Your task to perform on an android device: Clear all items from cart on amazon.com. Add "razer deathadder" to the cart on amazon.com, then select checkout. Image 0: 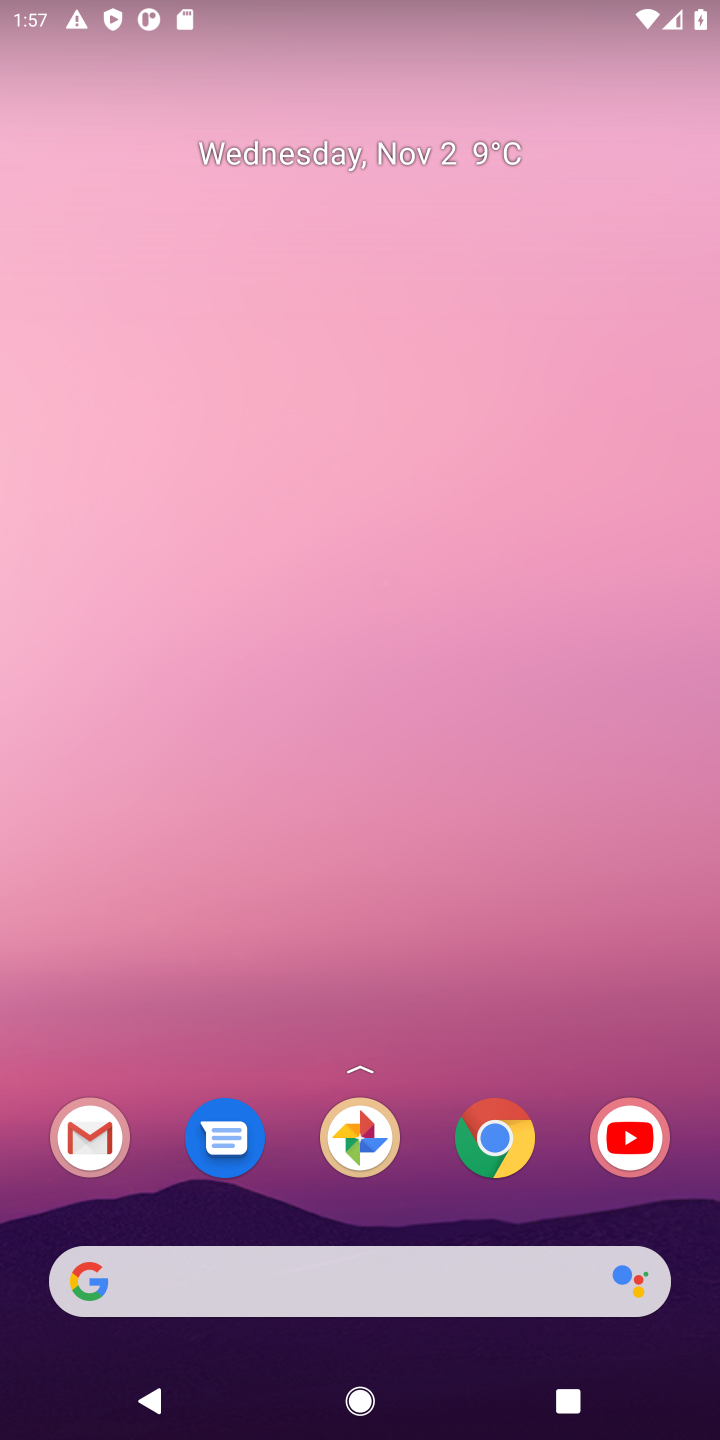
Step 0: click (524, 1151)
Your task to perform on an android device: Clear all items from cart on amazon.com. Add "razer deathadder" to the cart on amazon.com, then select checkout. Image 1: 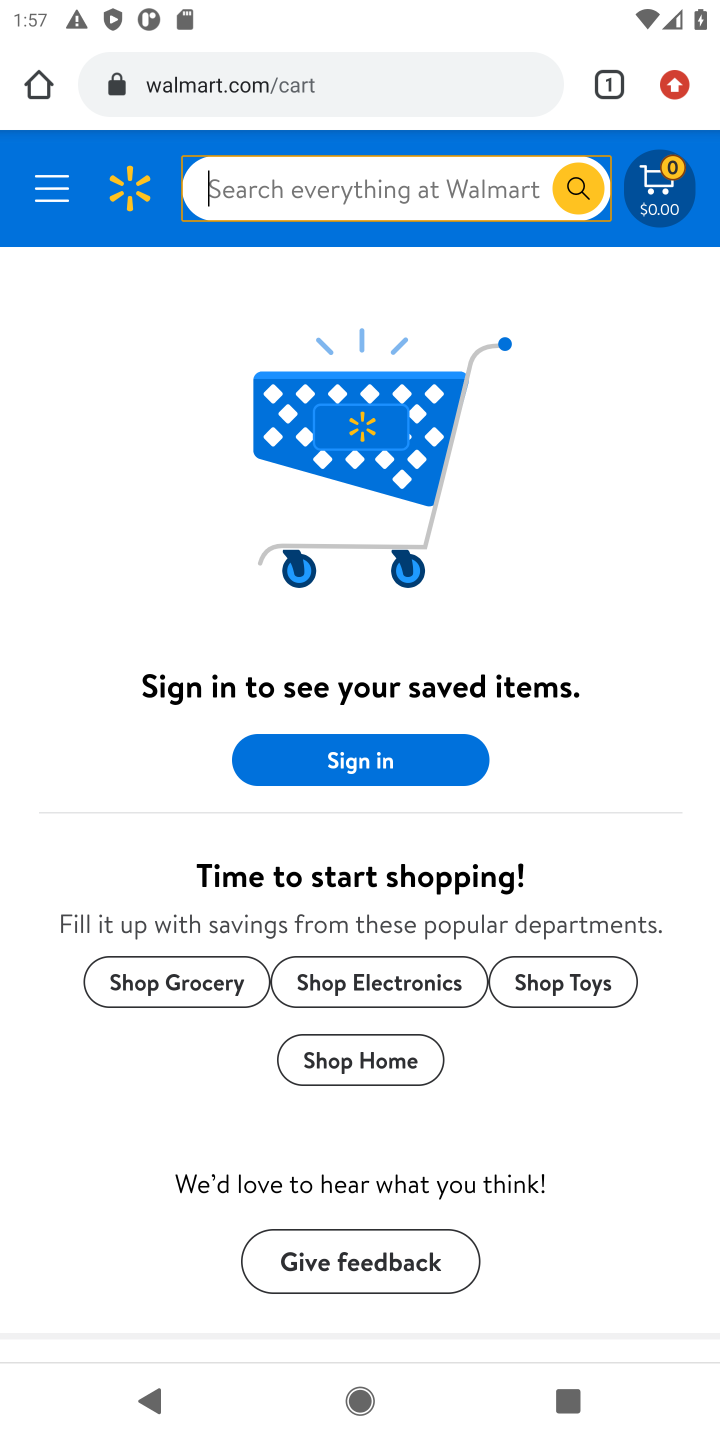
Step 1: click (428, 109)
Your task to perform on an android device: Clear all items from cart on amazon.com. Add "razer deathadder" to the cart on amazon.com, then select checkout. Image 2: 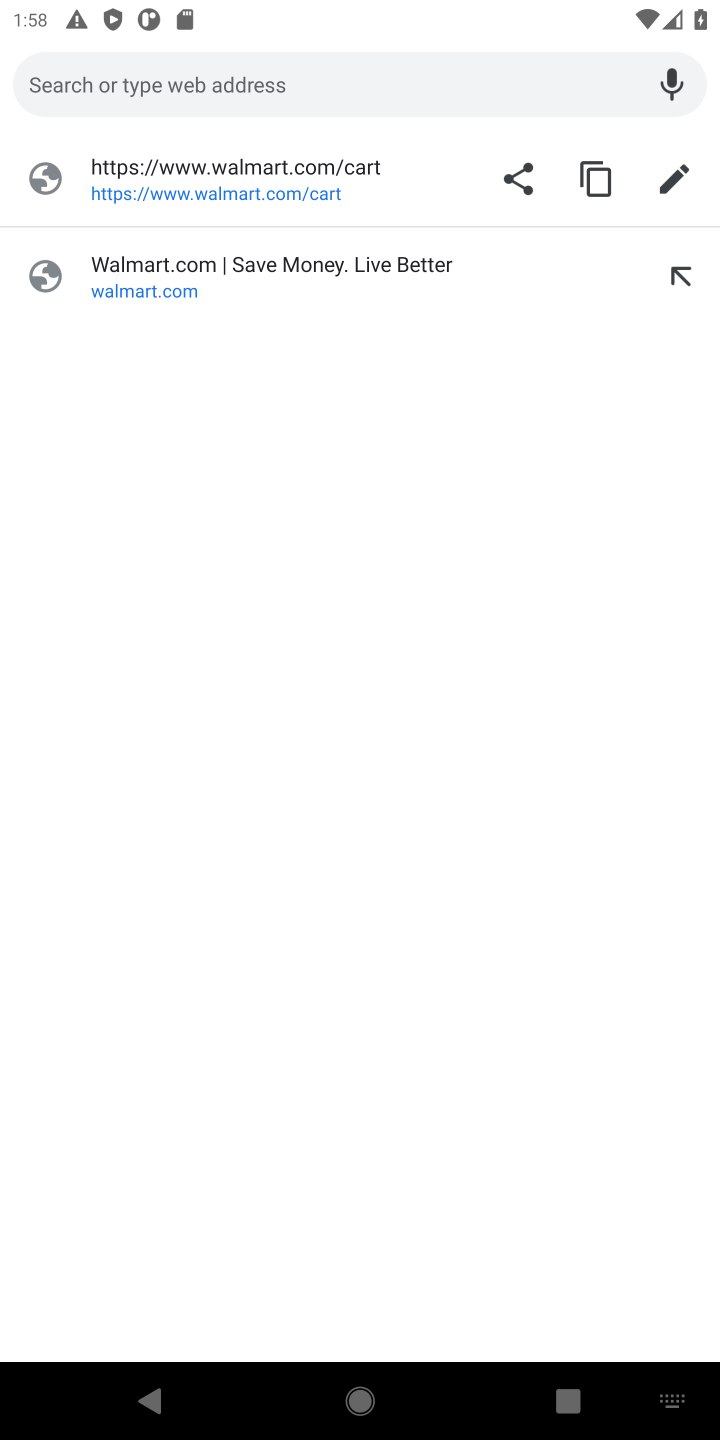
Step 2: type "amazon"
Your task to perform on an android device: Clear all items from cart on amazon.com. Add "razer deathadder" to the cart on amazon.com, then select checkout. Image 3: 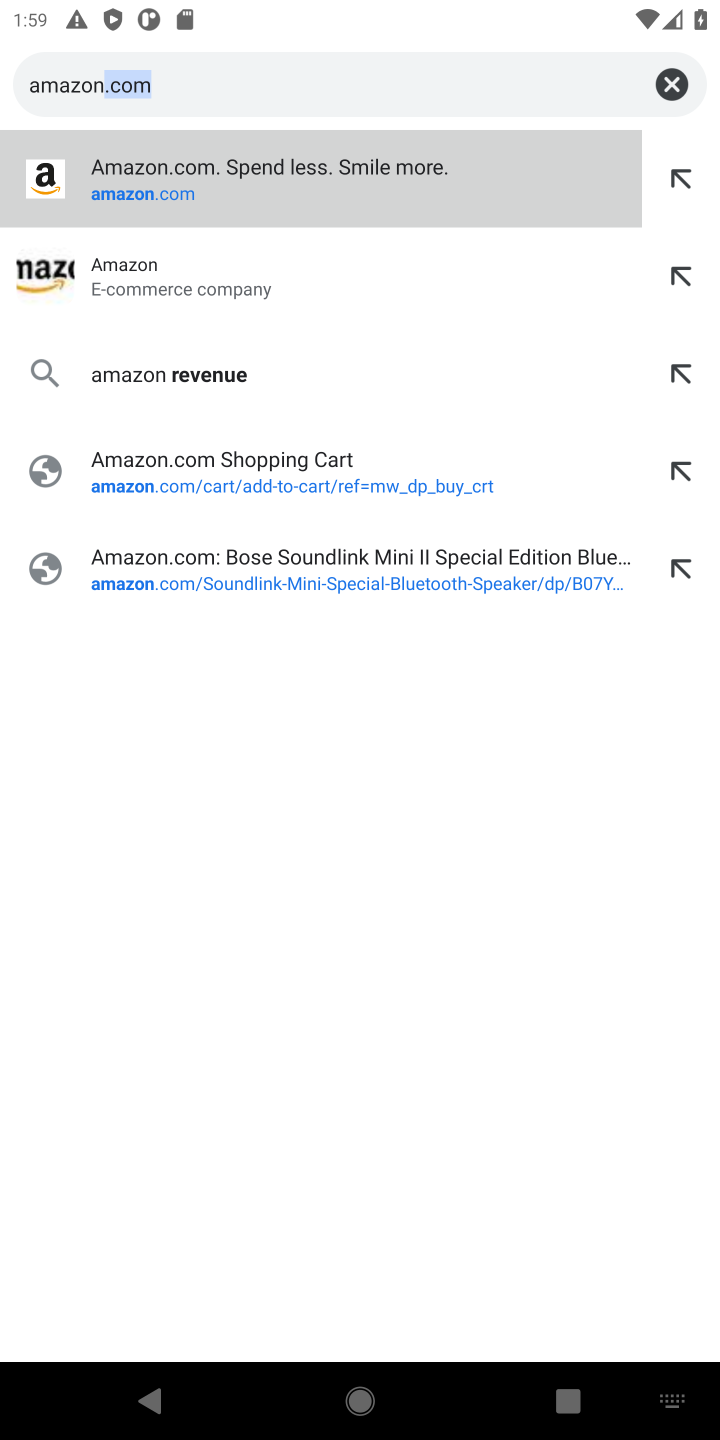
Step 3: click (210, 165)
Your task to perform on an android device: Clear all items from cart on amazon.com. Add "razer deathadder" to the cart on amazon.com, then select checkout. Image 4: 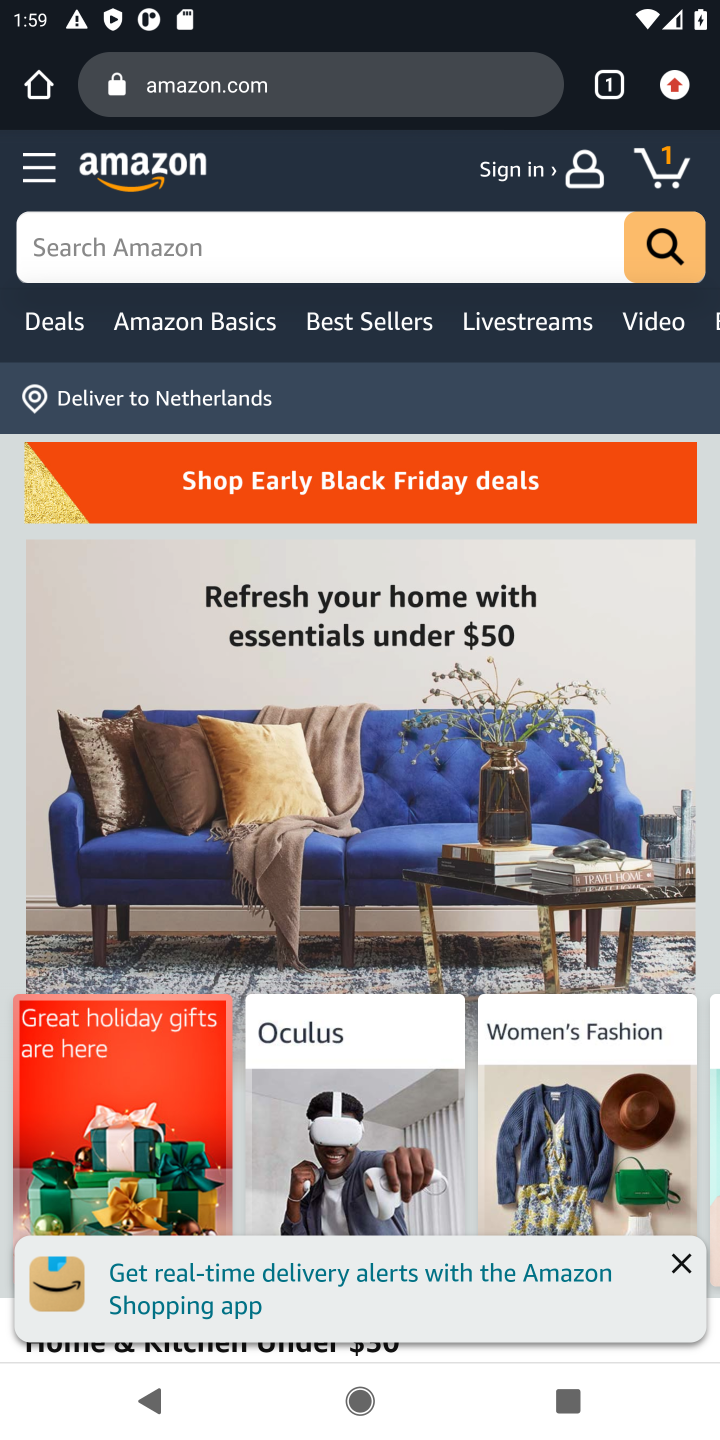
Step 4: click (650, 157)
Your task to perform on an android device: Clear all items from cart on amazon.com. Add "razer deathadder" to the cart on amazon.com, then select checkout. Image 5: 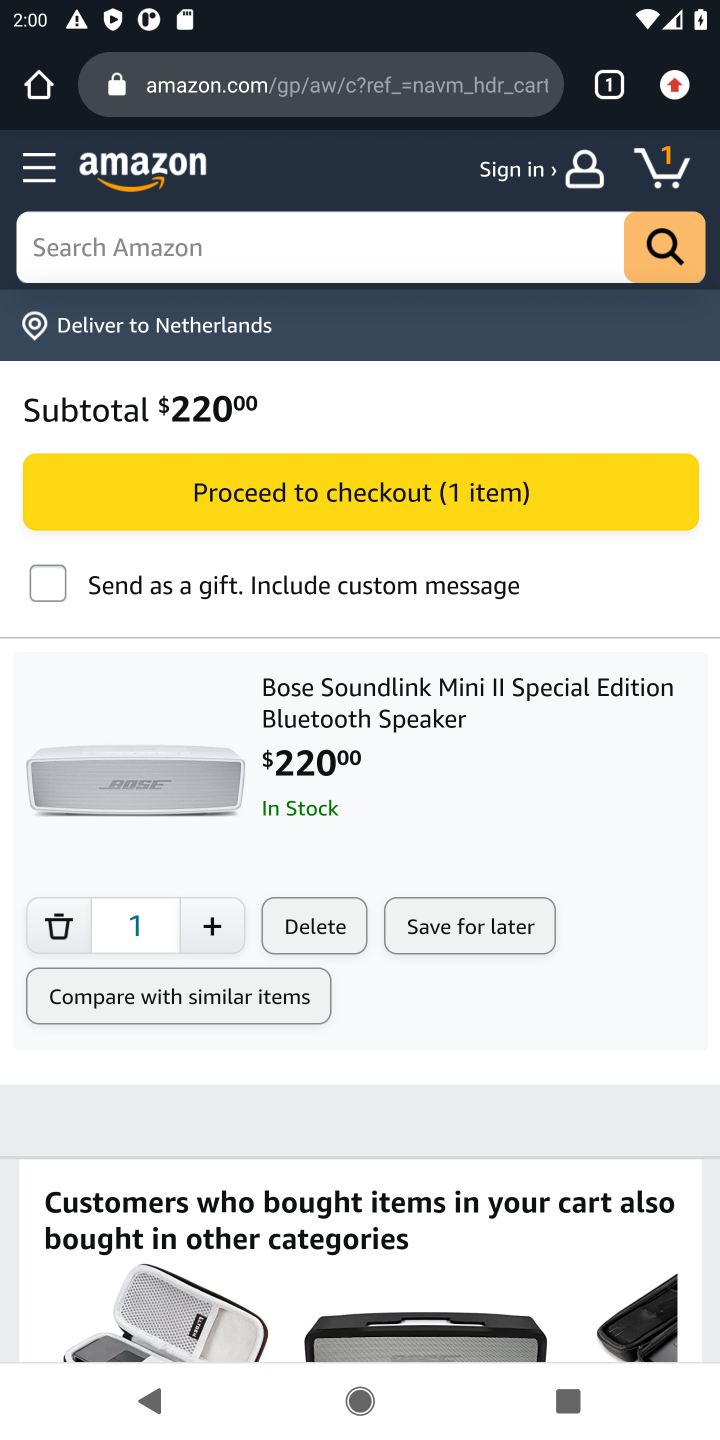
Step 5: click (336, 916)
Your task to perform on an android device: Clear all items from cart on amazon.com. Add "razer deathadder" to the cart on amazon.com, then select checkout. Image 6: 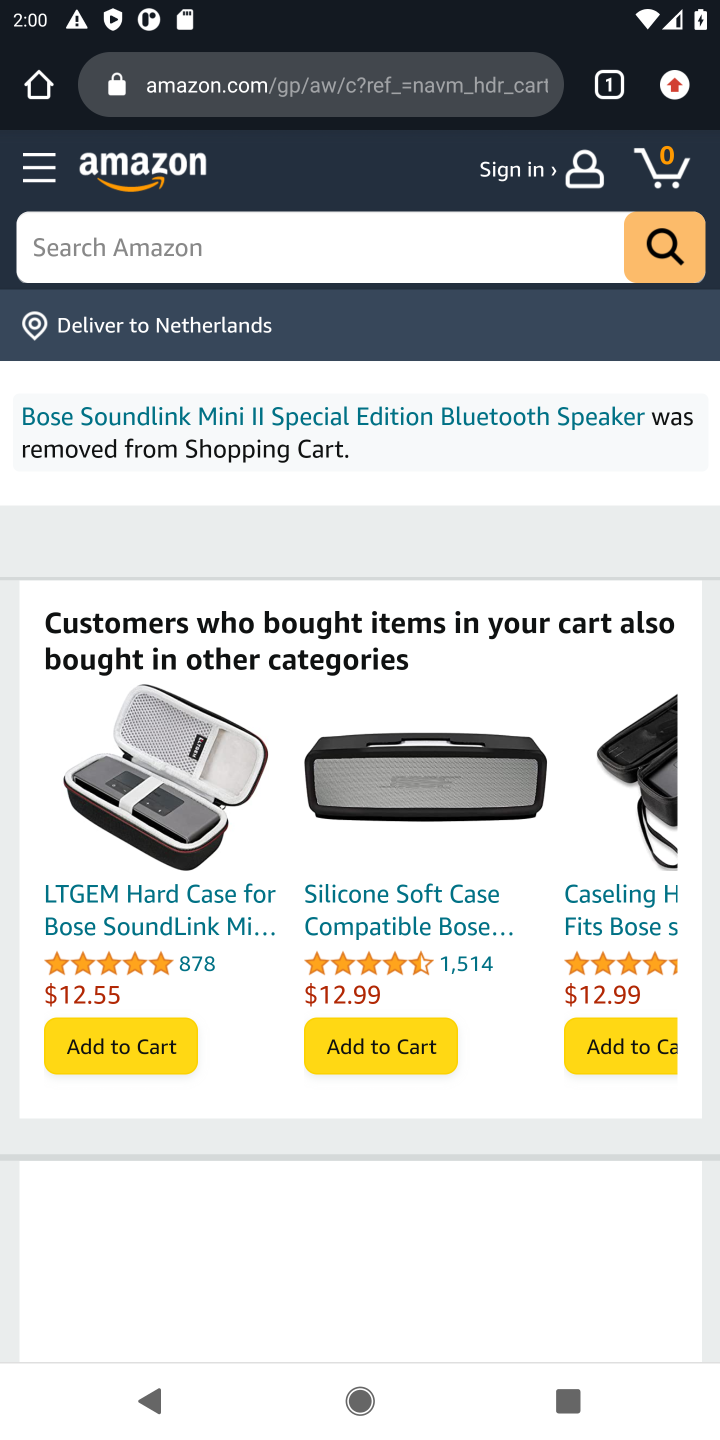
Step 6: click (214, 260)
Your task to perform on an android device: Clear all items from cart on amazon.com. Add "razer deathadder" to the cart on amazon.com, then select checkout. Image 7: 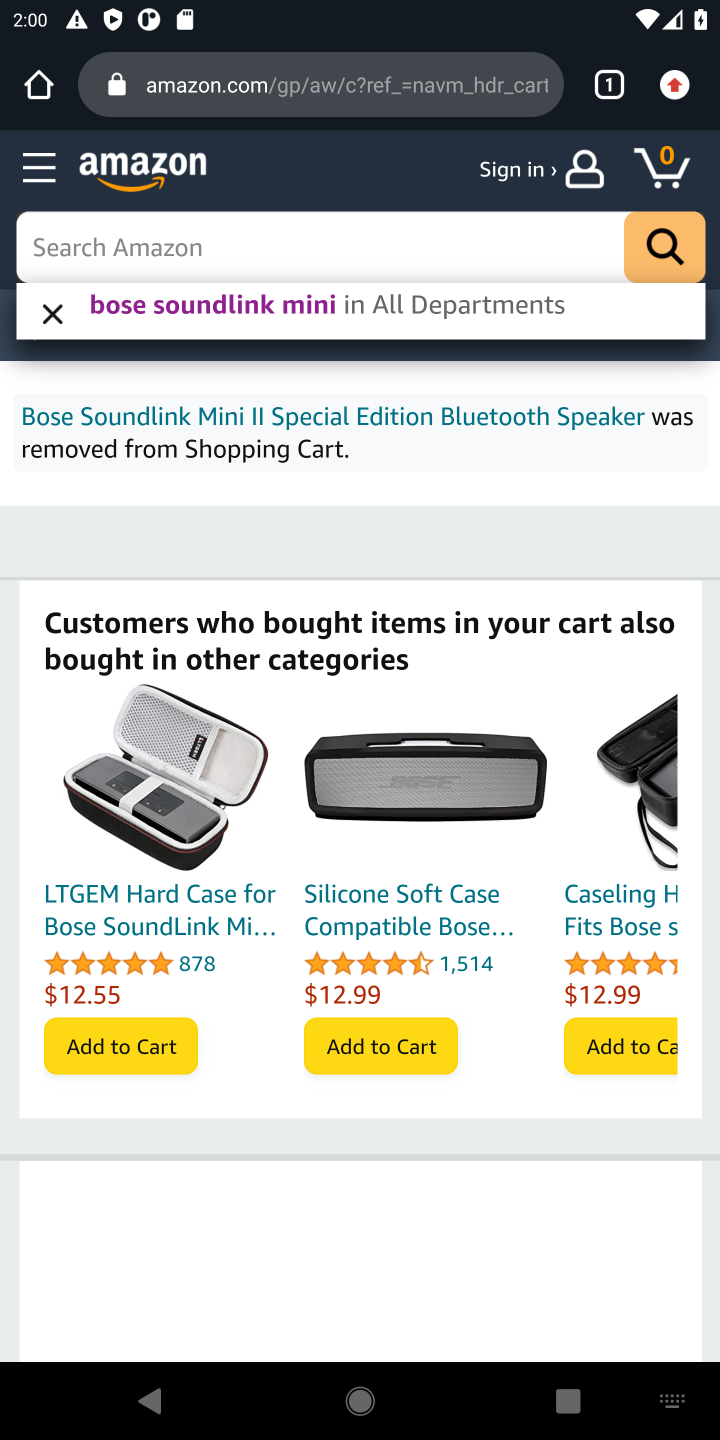
Step 7: type "razer deathadder"
Your task to perform on an android device: Clear all items from cart on amazon.com. Add "razer deathadder" to the cart on amazon.com, then select checkout. Image 8: 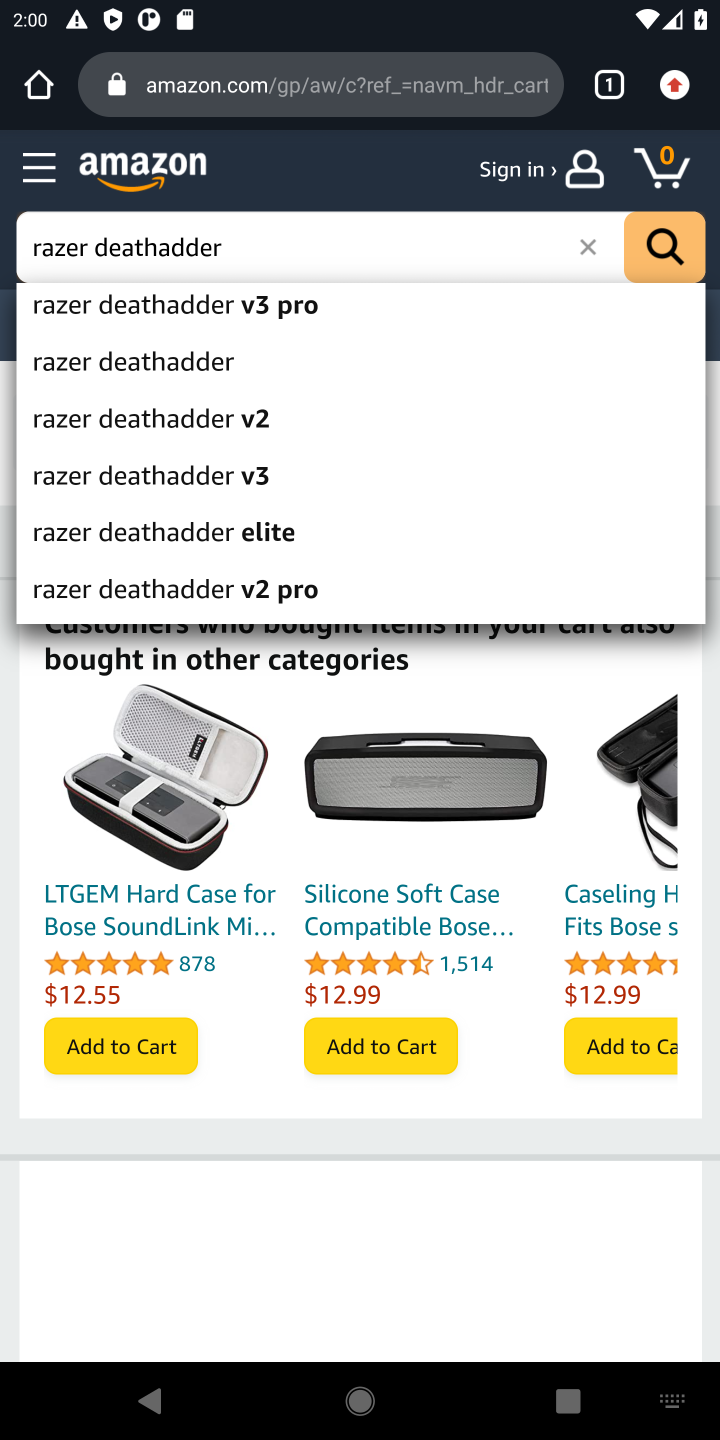
Step 8: click (638, 260)
Your task to perform on an android device: Clear all items from cart on amazon.com. Add "razer deathadder" to the cart on amazon.com, then select checkout. Image 9: 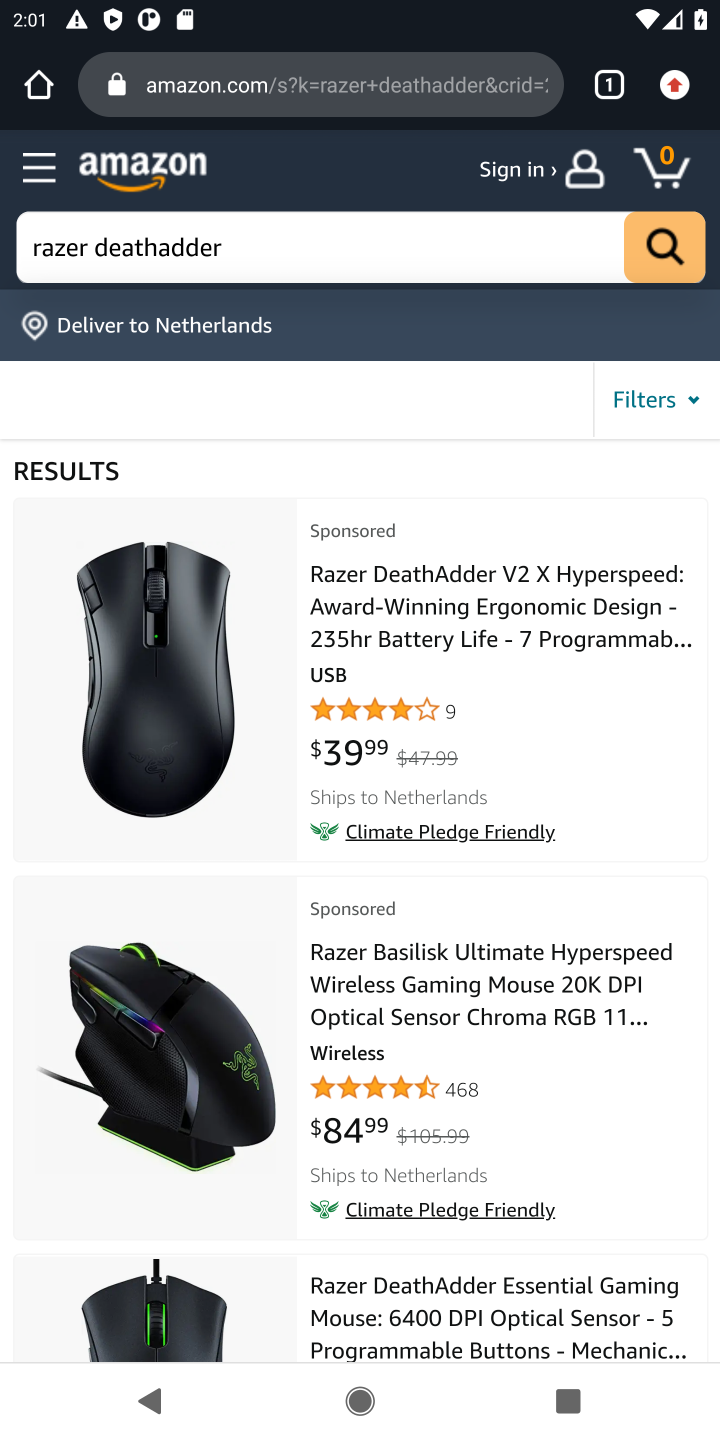
Step 9: click (460, 611)
Your task to perform on an android device: Clear all items from cart on amazon.com. Add "razer deathadder" to the cart on amazon.com, then select checkout. Image 10: 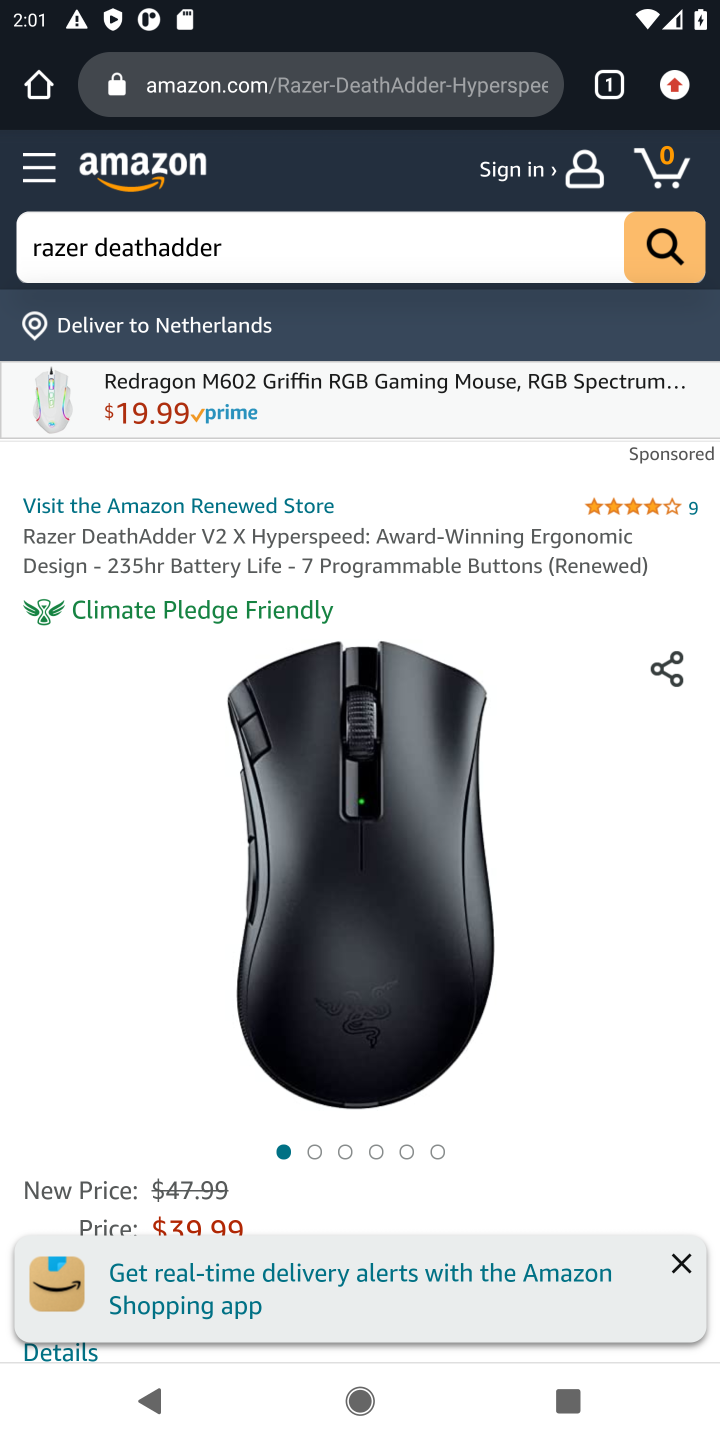
Step 10: drag from (392, 1021) to (438, 411)
Your task to perform on an android device: Clear all items from cart on amazon.com. Add "razer deathadder" to the cart on amazon.com, then select checkout. Image 11: 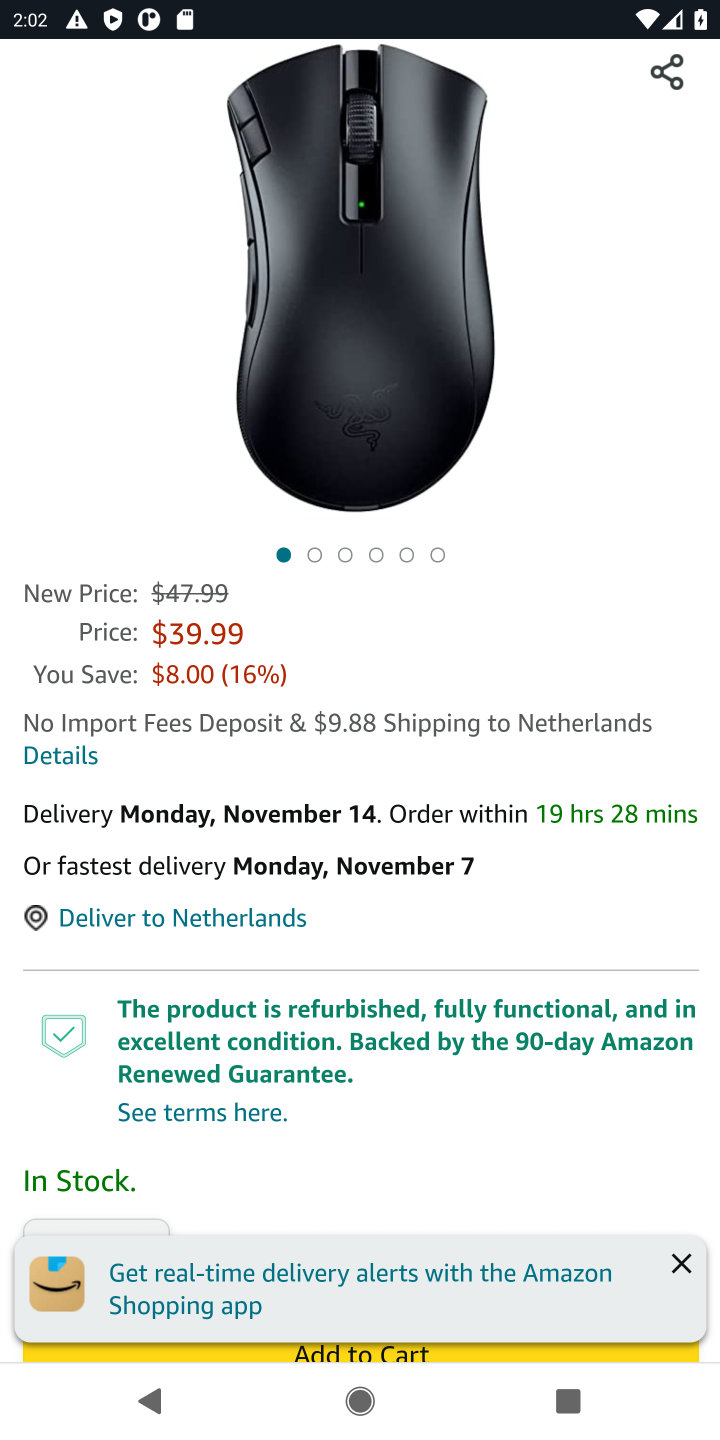
Step 11: drag from (423, 616) to (427, 316)
Your task to perform on an android device: Clear all items from cart on amazon.com. Add "razer deathadder" to the cart on amazon.com, then select checkout. Image 12: 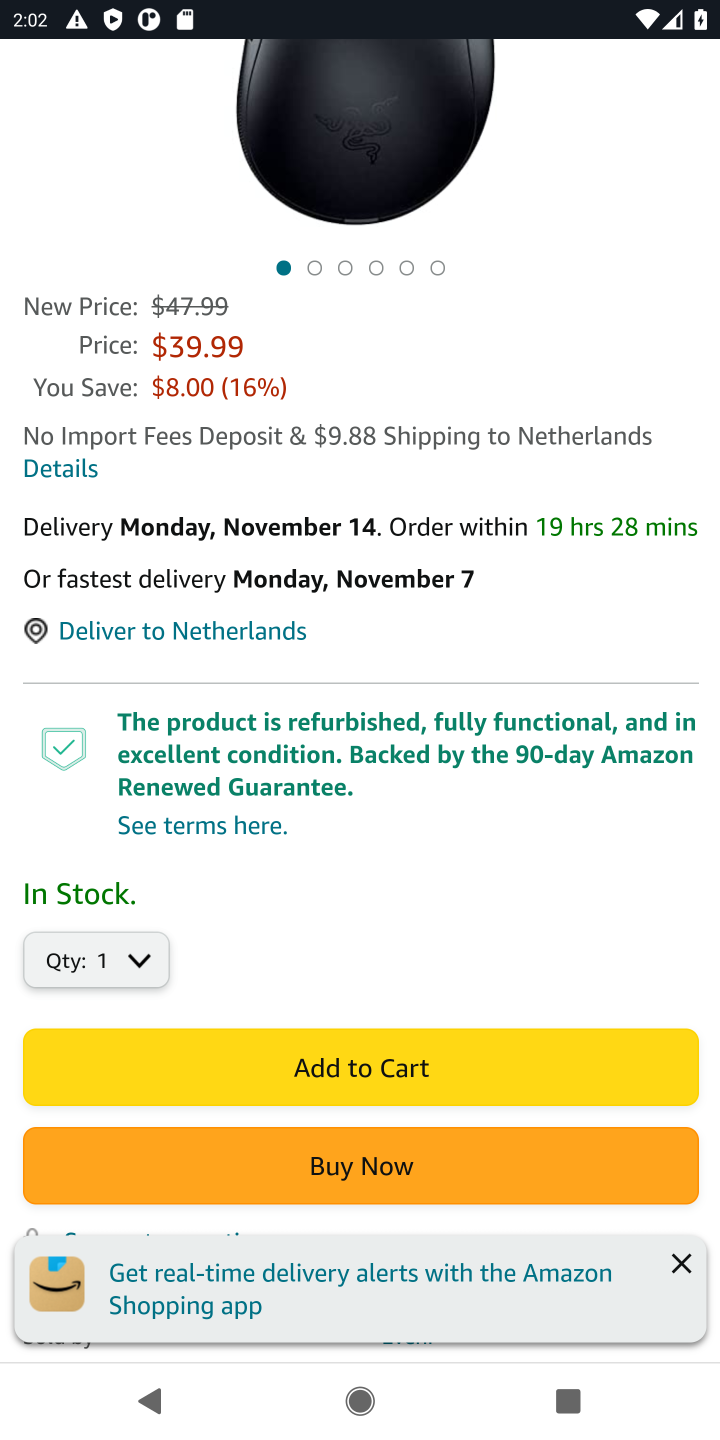
Step 12: click (296, 1049)
Your task to perform on an android device: Clear all items from cart on amazon.com. Add "razer deathadder" to the cart on amazon.com, then select checkout. Image 13: 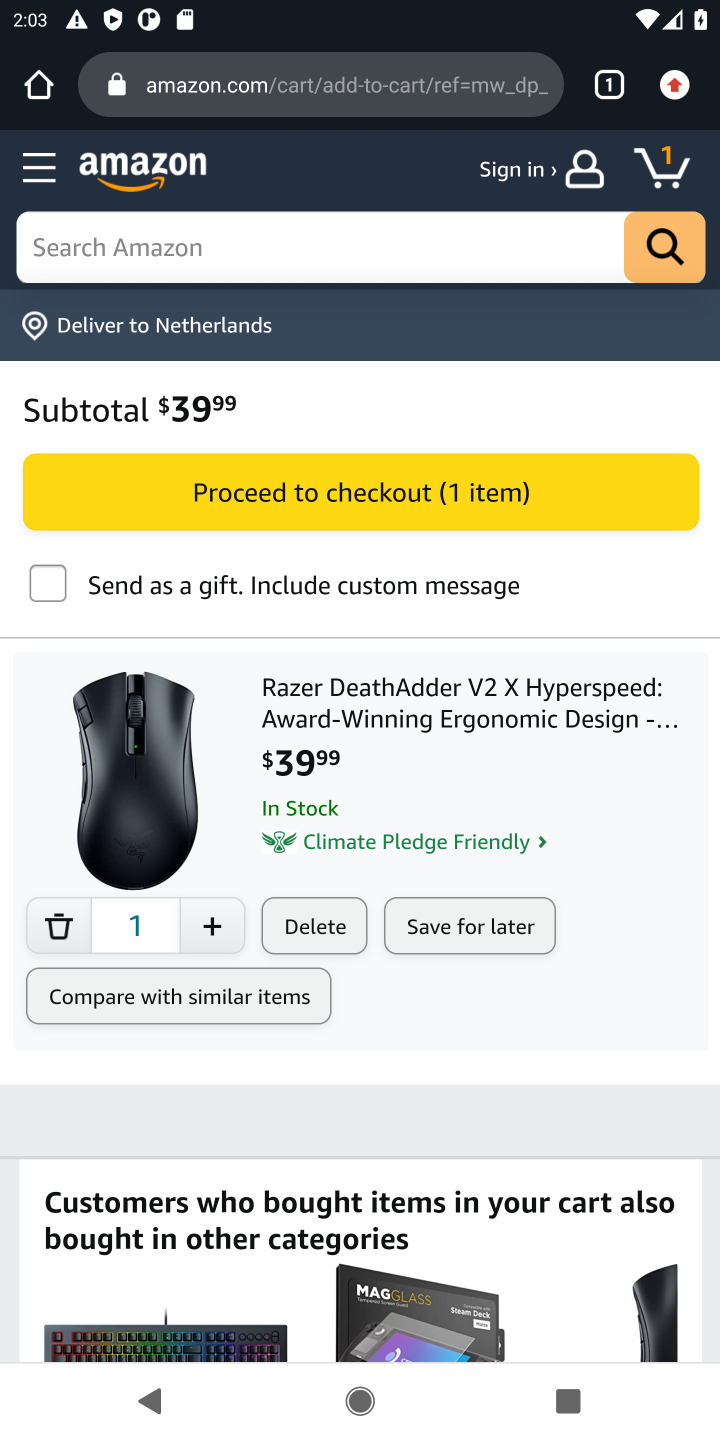
Step 13: click (387, 504)
Your task to perform on an android device: Clear all items from cart on amazon.com. Add "razer deathadder" to the cart on amazon.com, then select checkout. Image 14: 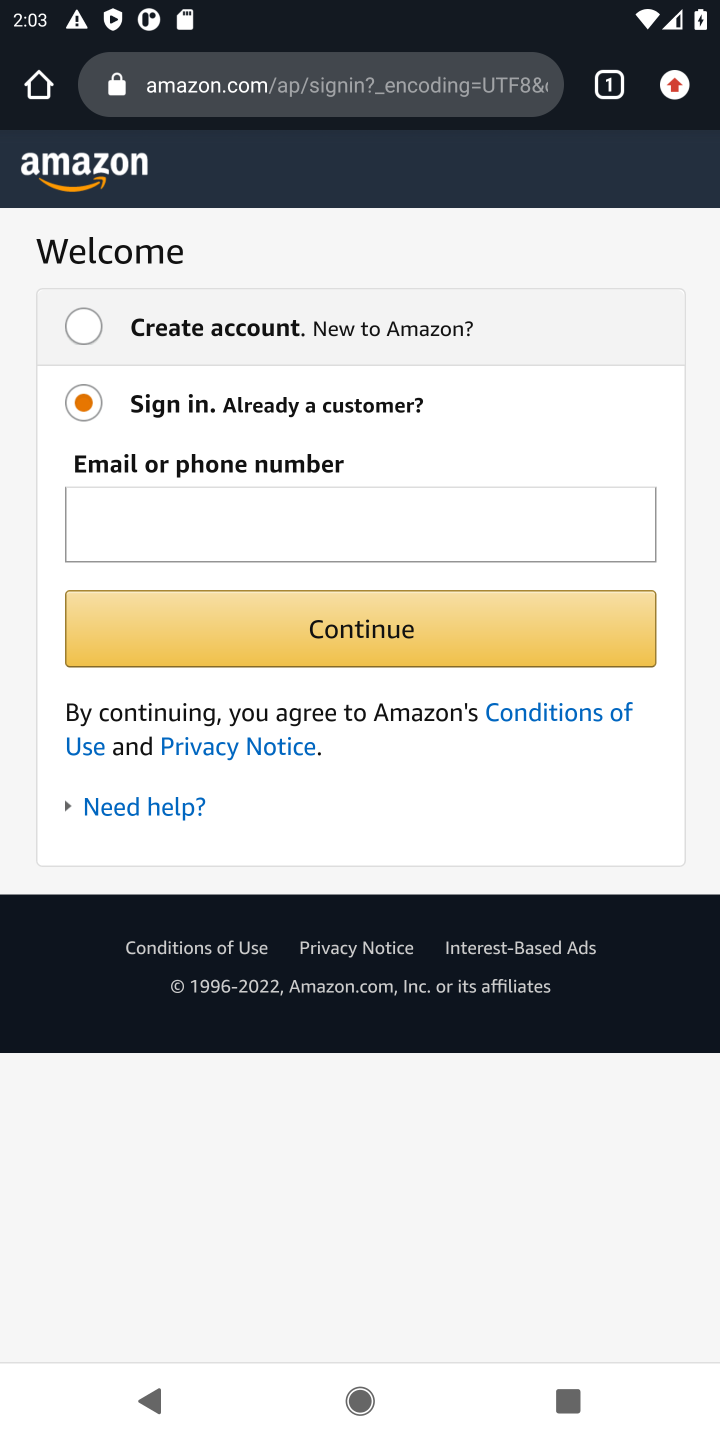
Step 14: task complete